Your task to perform on an android device: Add macbook to the cart on newegg, then select checkout. Image 0: 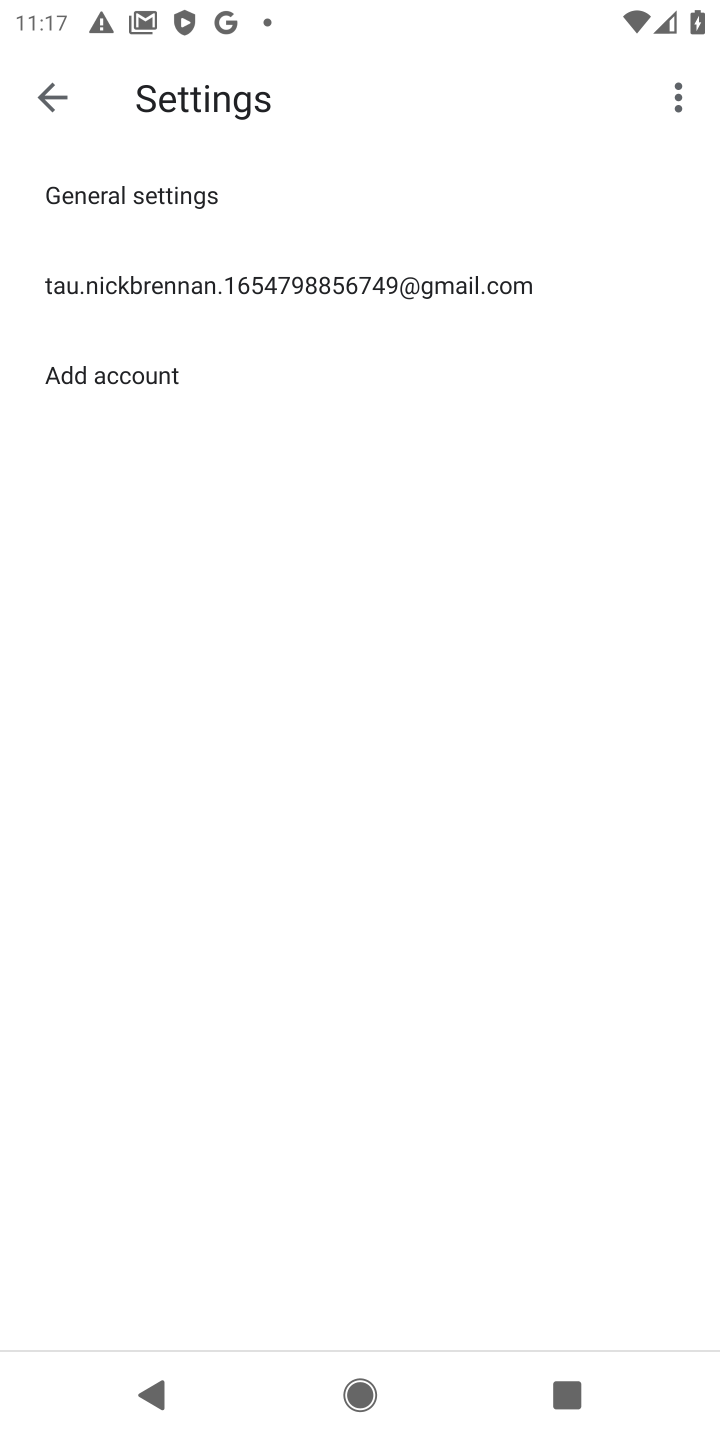
Step 0: press home button
Your task to perform on an android device: Add macbook to the cart on newegg, then select checkout. Image 1: 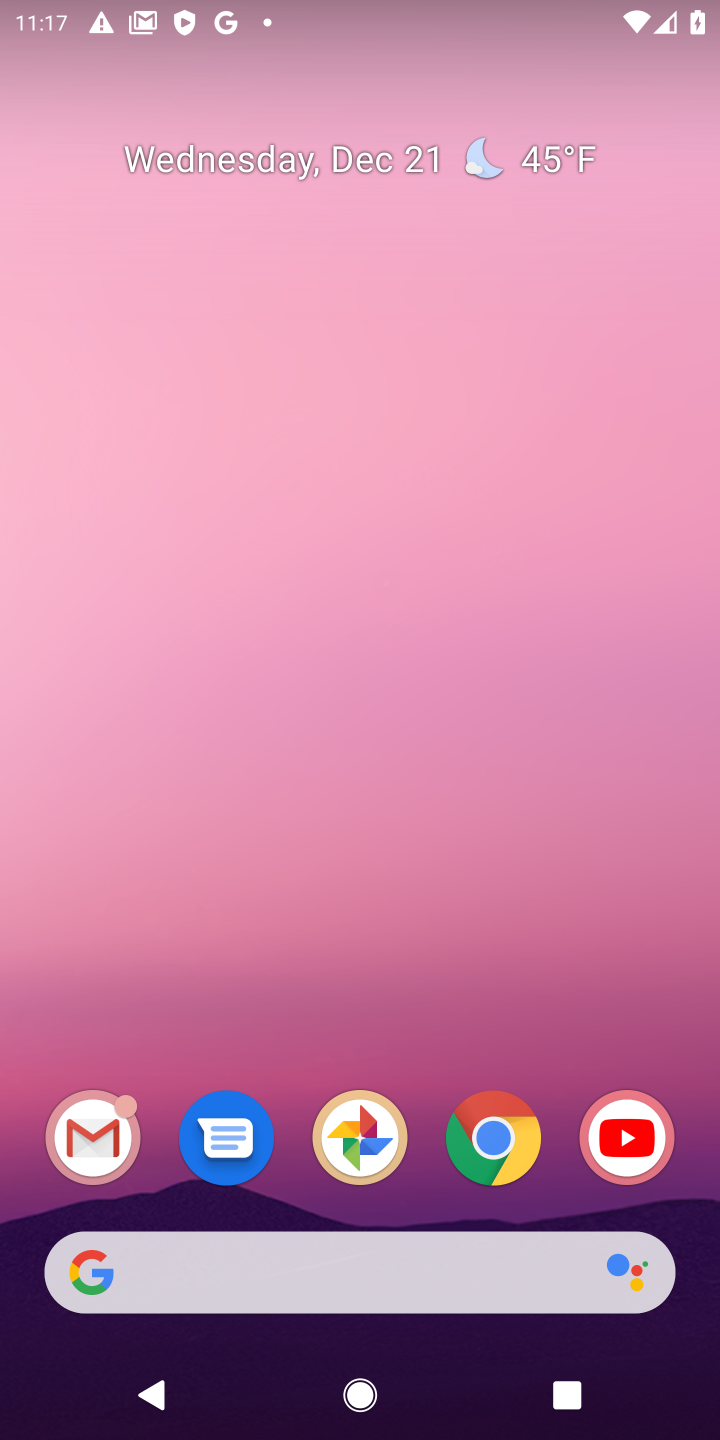
Step 1: click (497, 1147)
Your task to perform on an android device: Add macbook to the cart on newegg, then select checkout. Image 2: 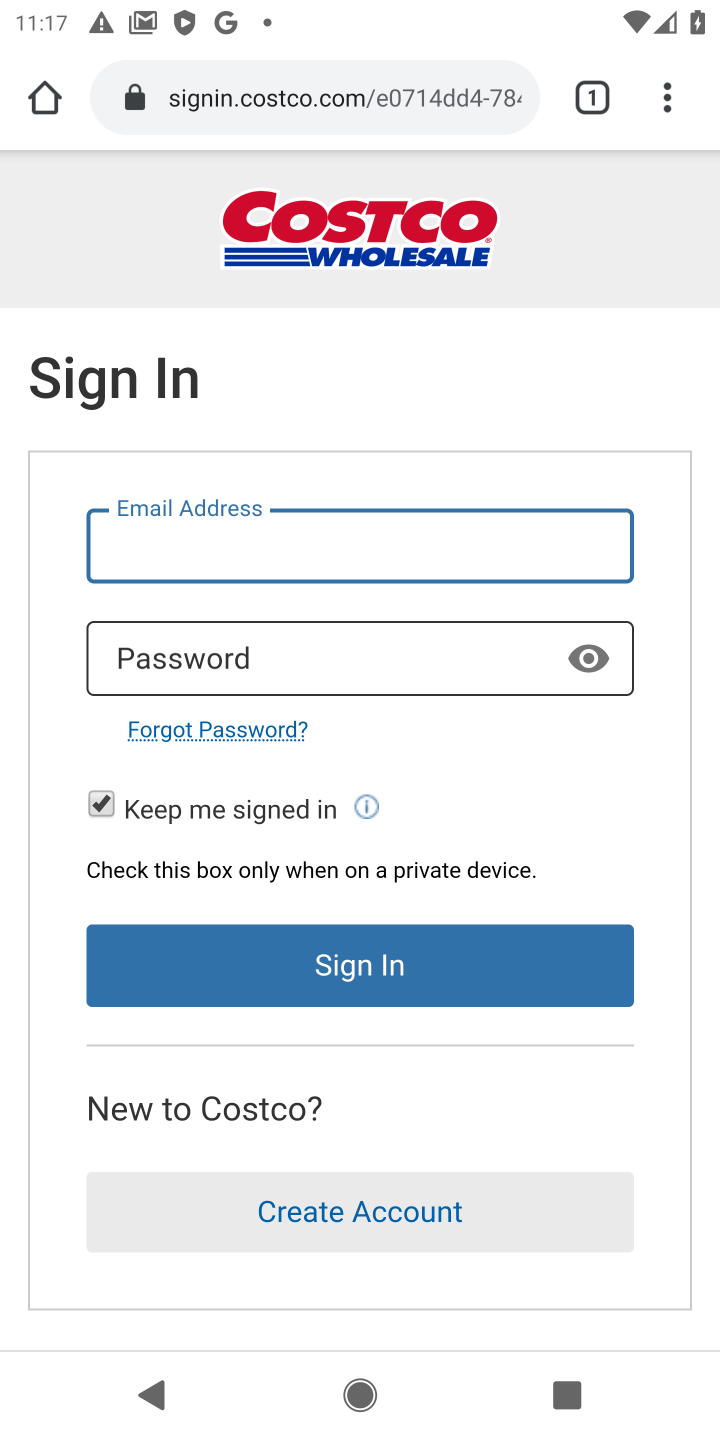
Step 2: click (208, 98)
Your task to perform on an android device: Add macbook to the cart on newegg, then select checkout. Image 3: 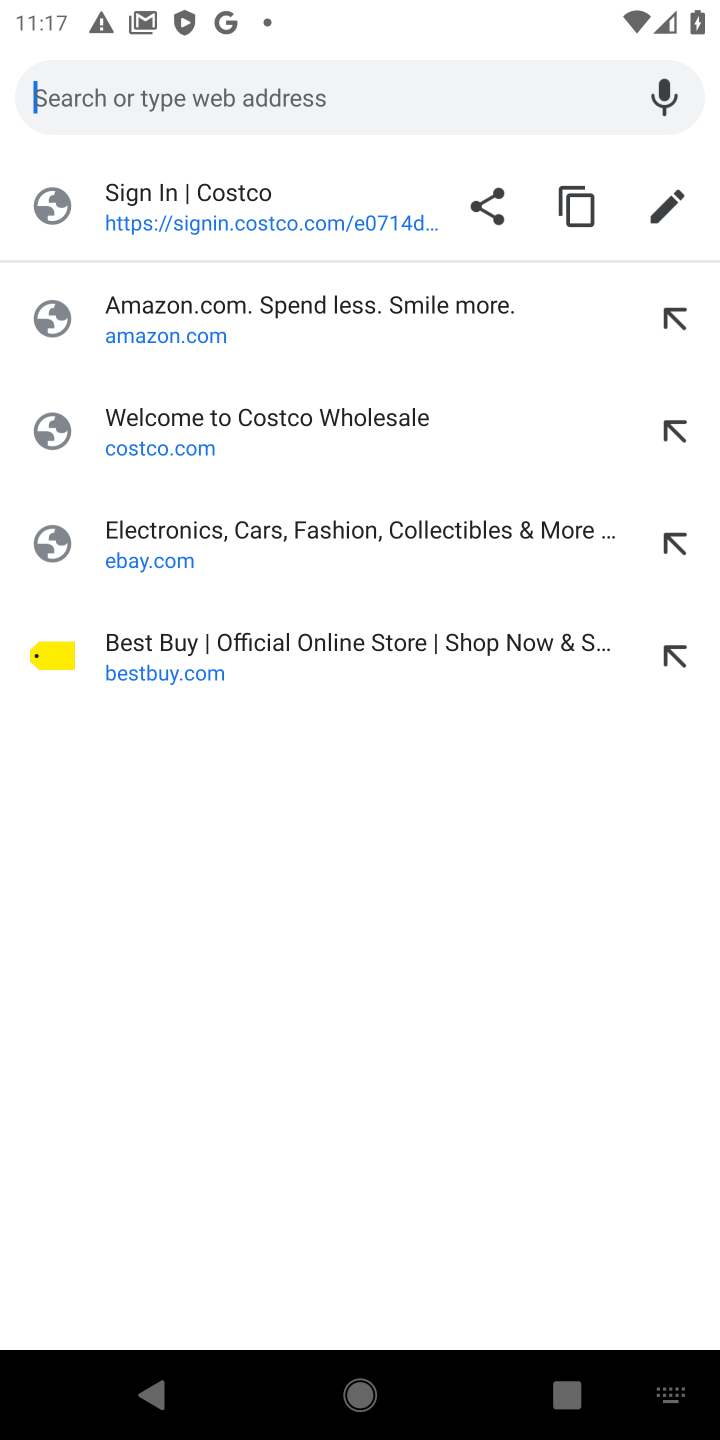
Step 3: type "newegg.com"
Your task to perform on an android device: Add macbook to the cart on newegg, then select checkout. Image 4: 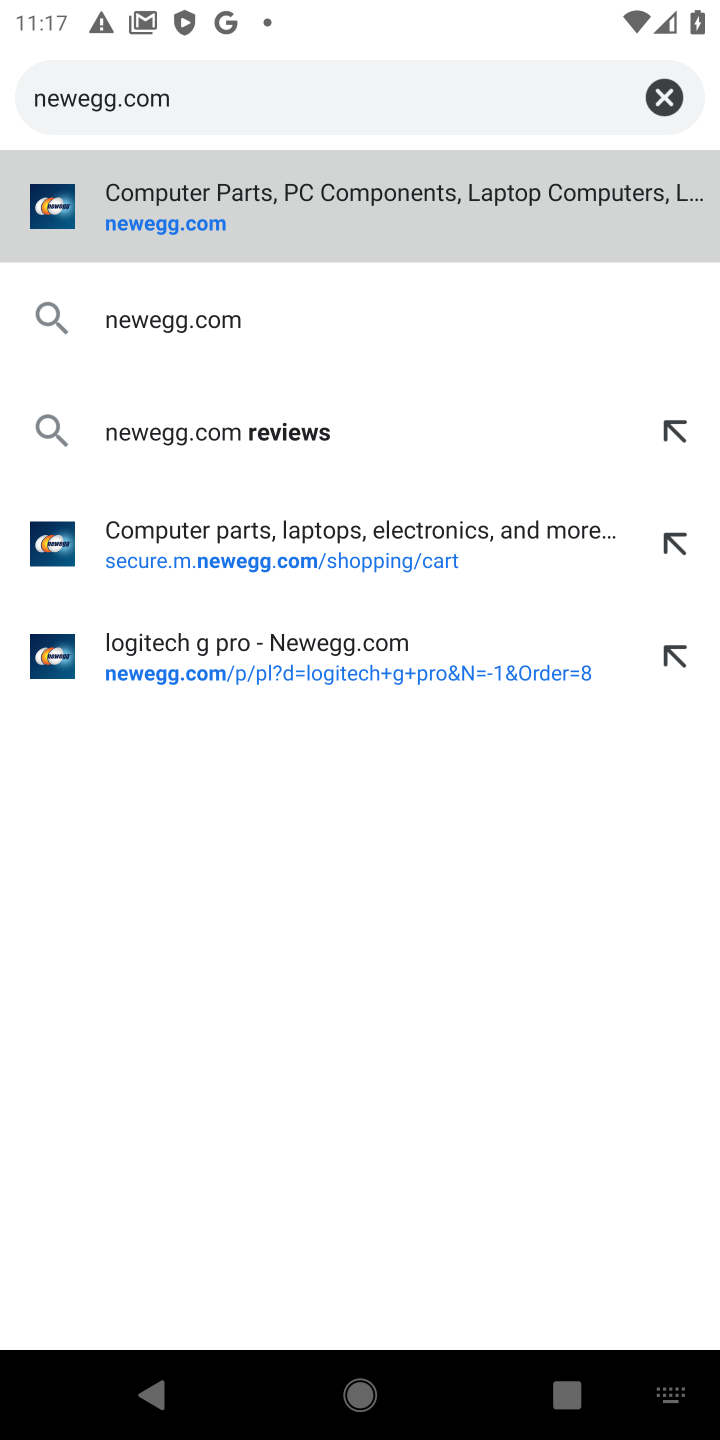
Step 4: click (139, 219)
Your task to perform on an android device: Add macbook to the cart on newegg, then select checkout. Image 5: 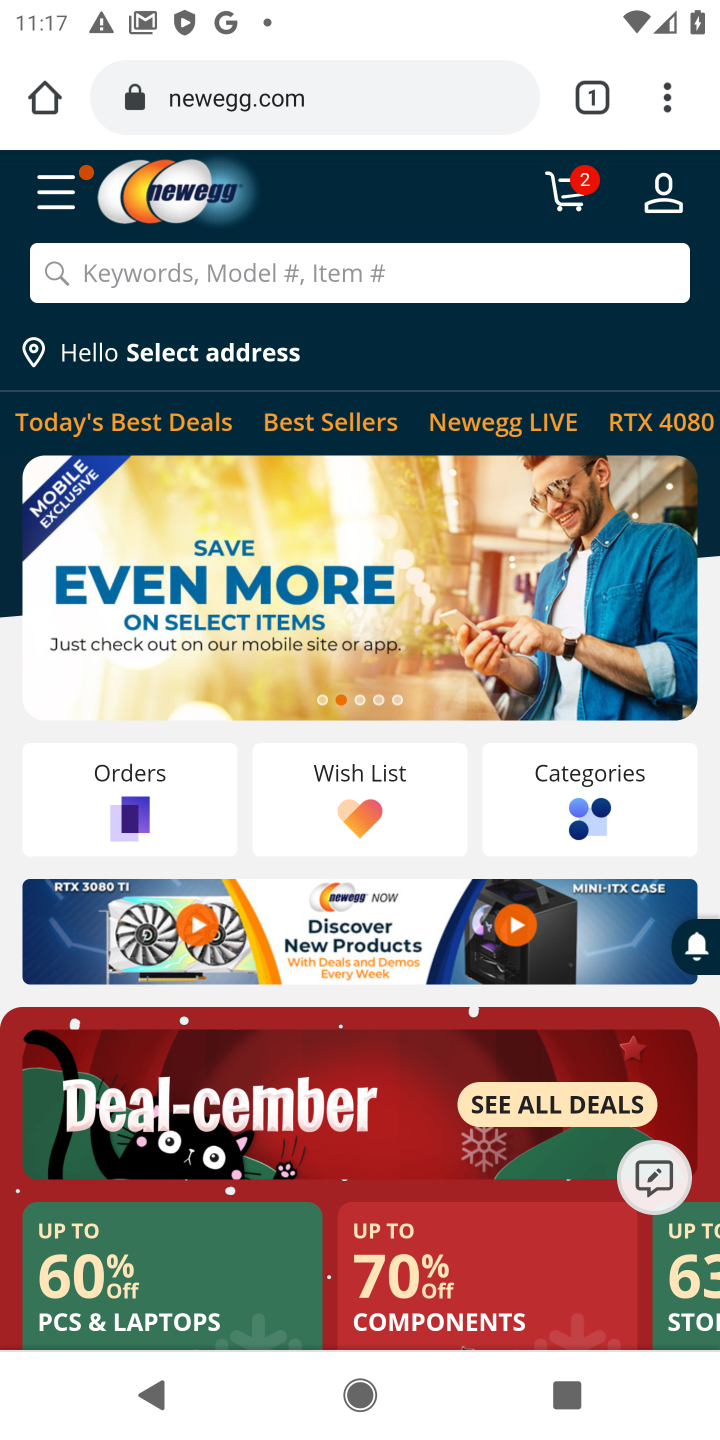
Step 5: click (178, 289)
Your task to perform on an android device: Add macbook to the cart on newegg, then select checkout. Image 6: 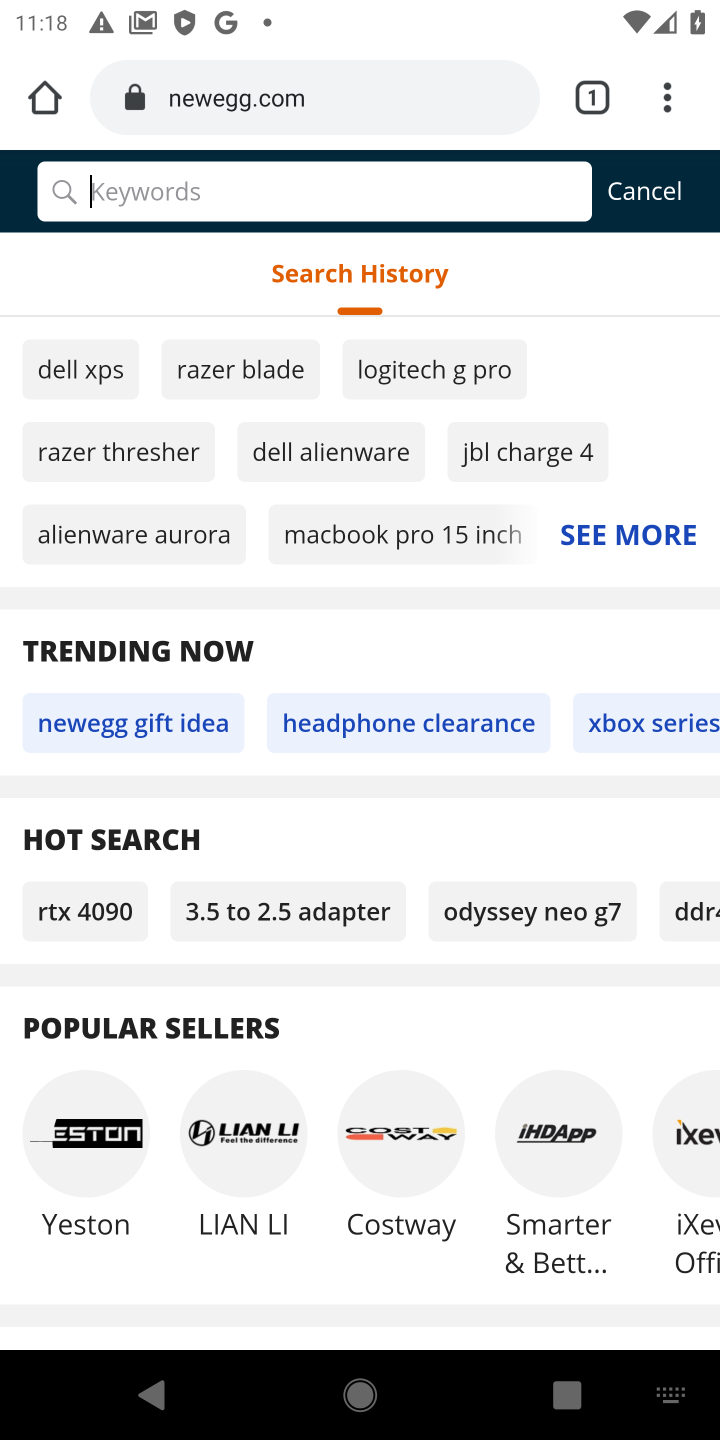
Step 6: type "macbook"
Your task to perform on an android device: Add macbook to the cart on newegg, then select checkout. Image 7: 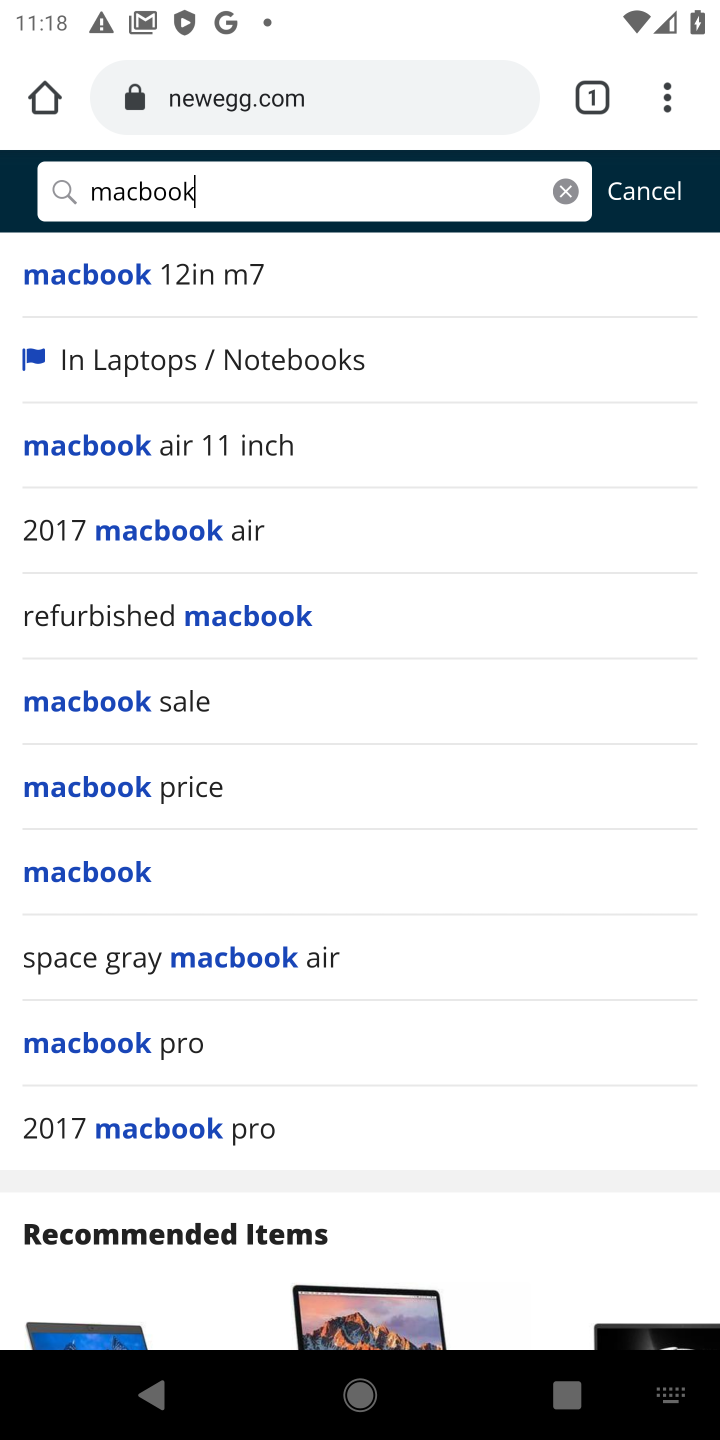
Step 7: click (74, 865)
Your task to perform on an android device: Add macbook to the cart on newegg, then select checkout. Image 8: 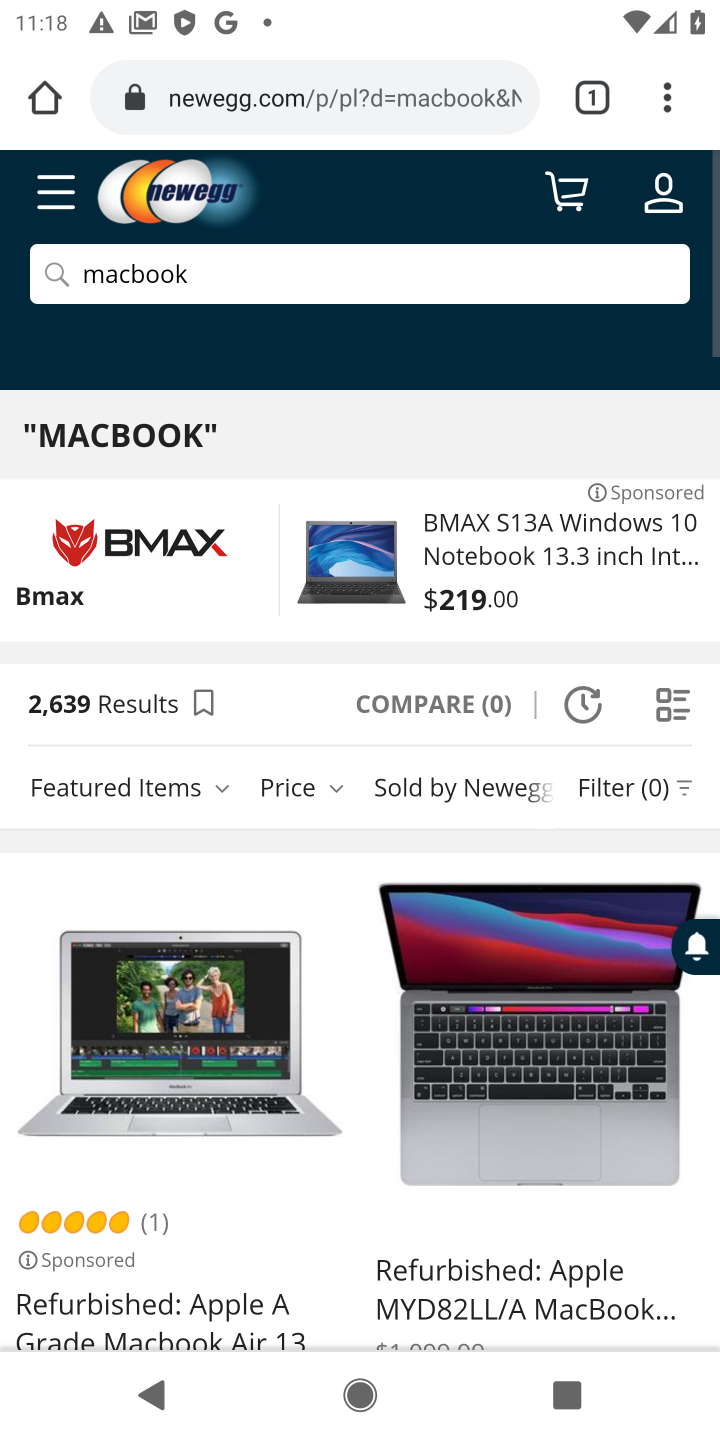
Step 8: click (84, 875)
Your task to perform on an android device: Add macbook to the cart on newegg, then select checkout. Image 9: 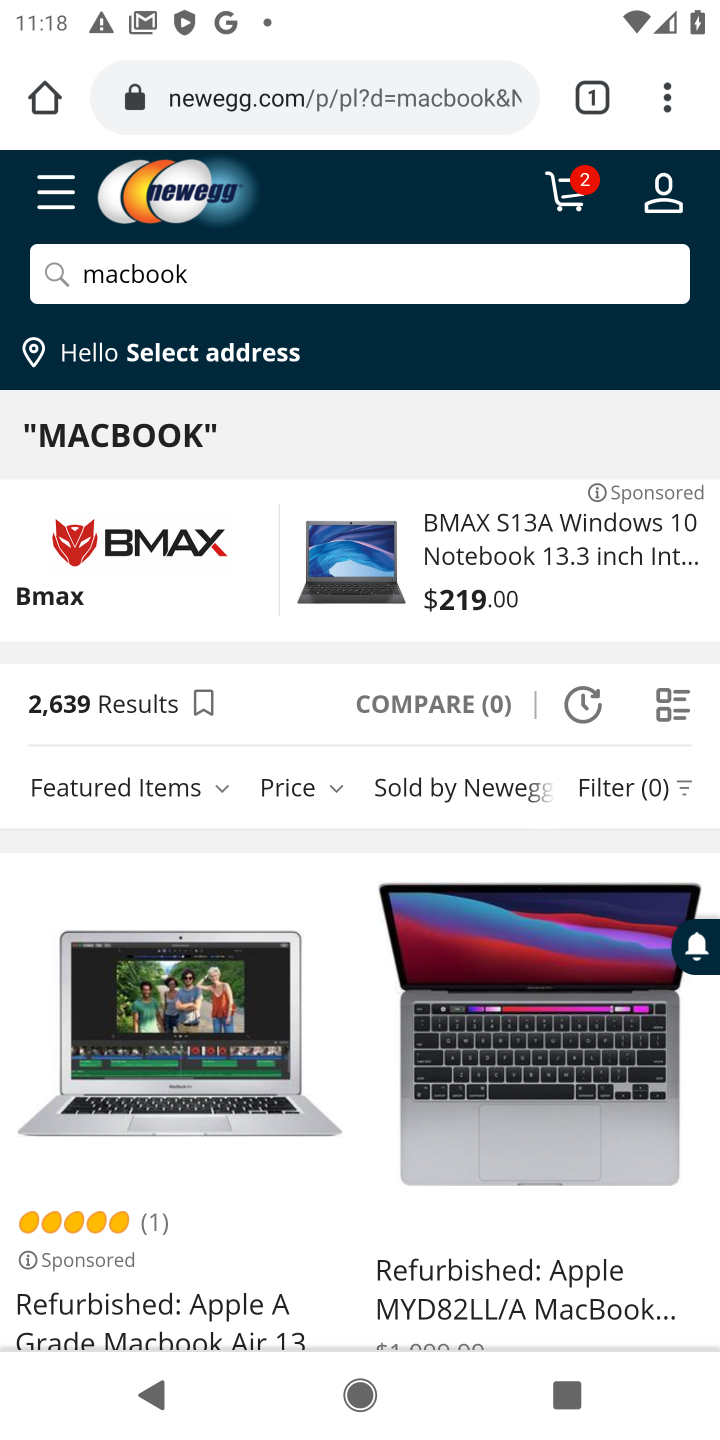
Step 9: drag from (84, 875) to (136, 578)
Your task to perform on an android device: Add macbook to the cart on newegg, then select checkout. Image 10: 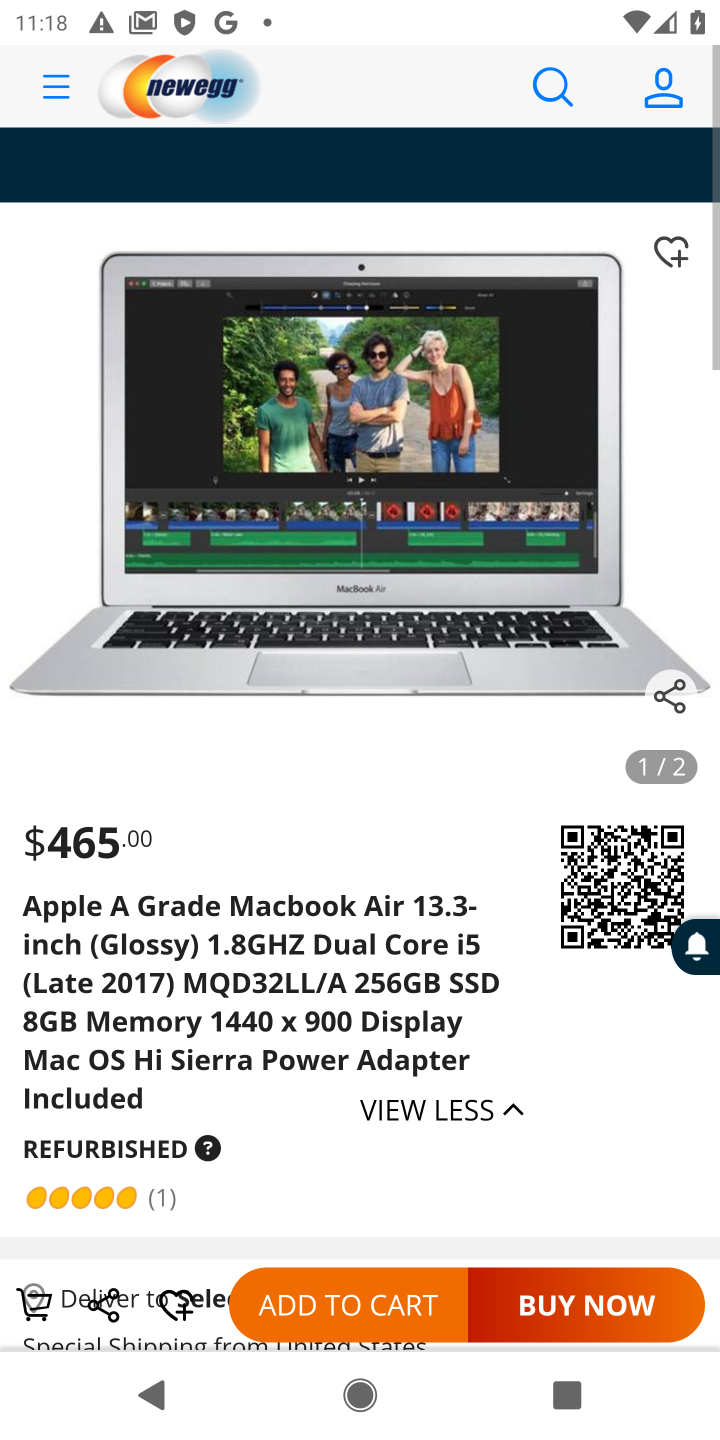
Step 10: click (152, 1092)
Your task to perform on an android device: Add macbook to the cart on newegg, then select checkout. Image 11: 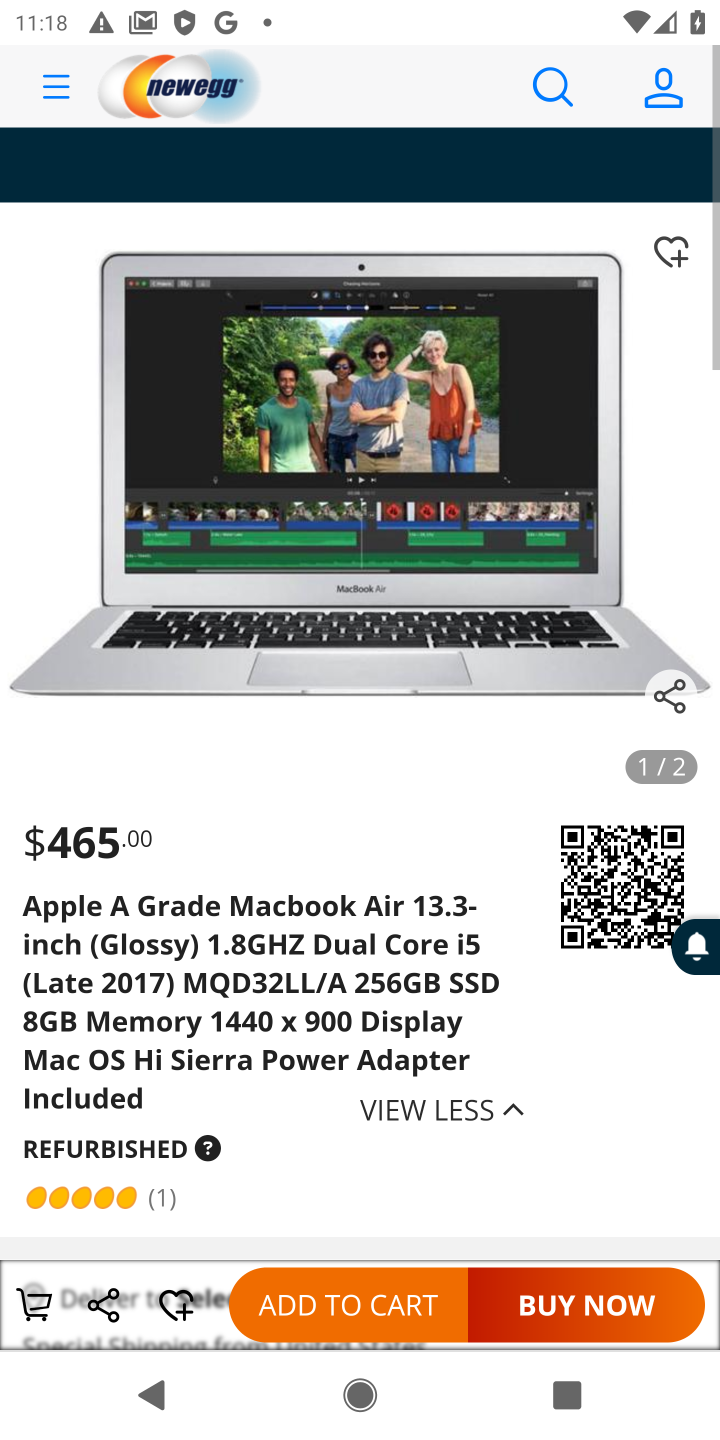
Step 11: drag from (155, 1086) to (189, 835)
Your task to perform on an android device: Add macbook to the cart on newegg, then select checkout. Image 12: 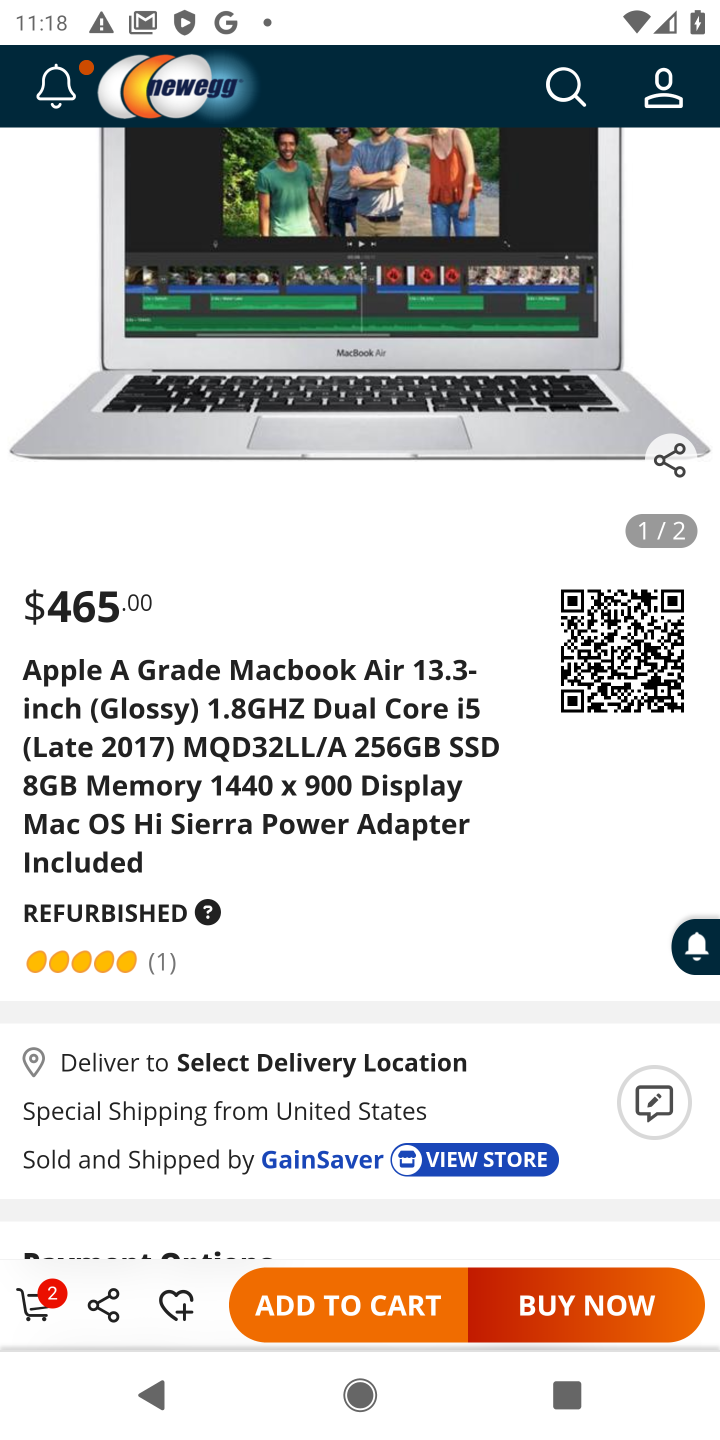
Step 12: click (318, 1305)
Your task to perform on an android device: Add macbook to the cart on newegg, then select checkout. Image 13: 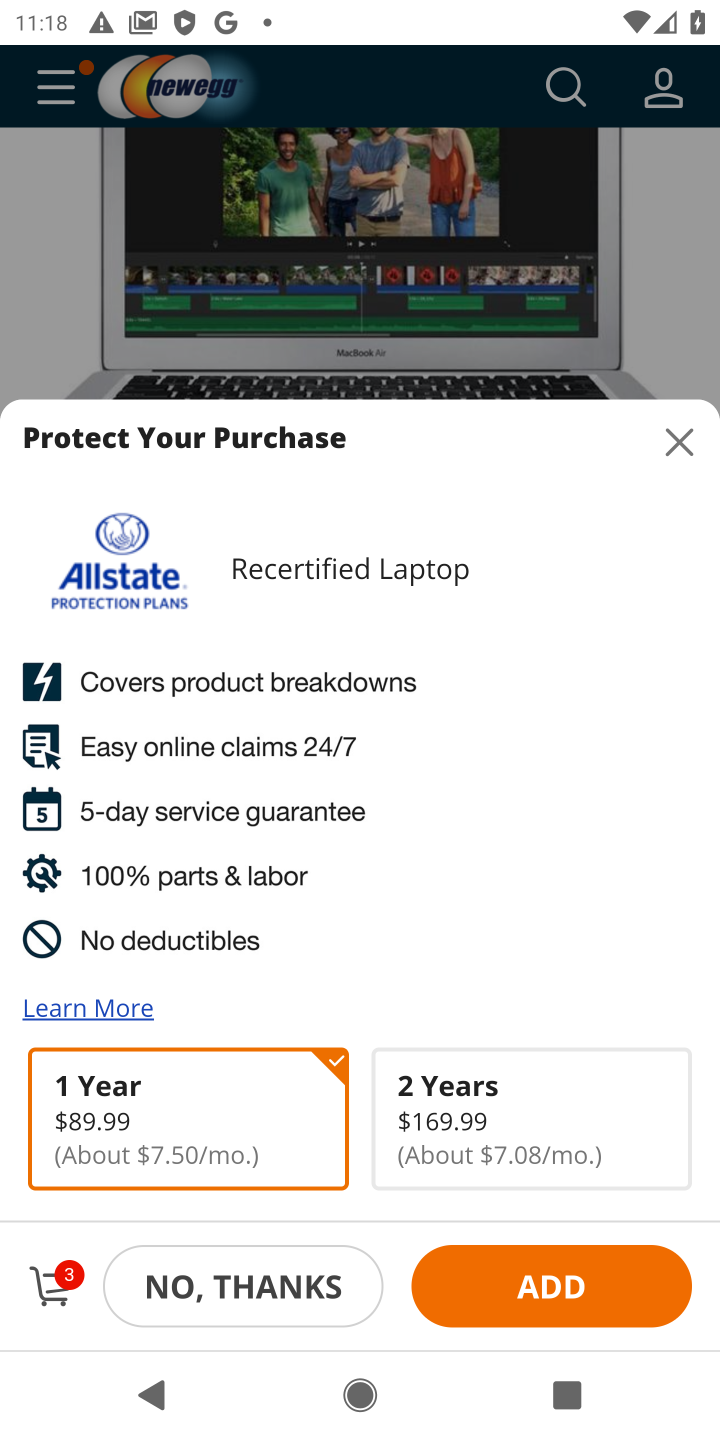
Step 13: click (64, 1288)
Your task to perform on an android device: Add macbook to the cart on newegg, then select checkout. Image 14: 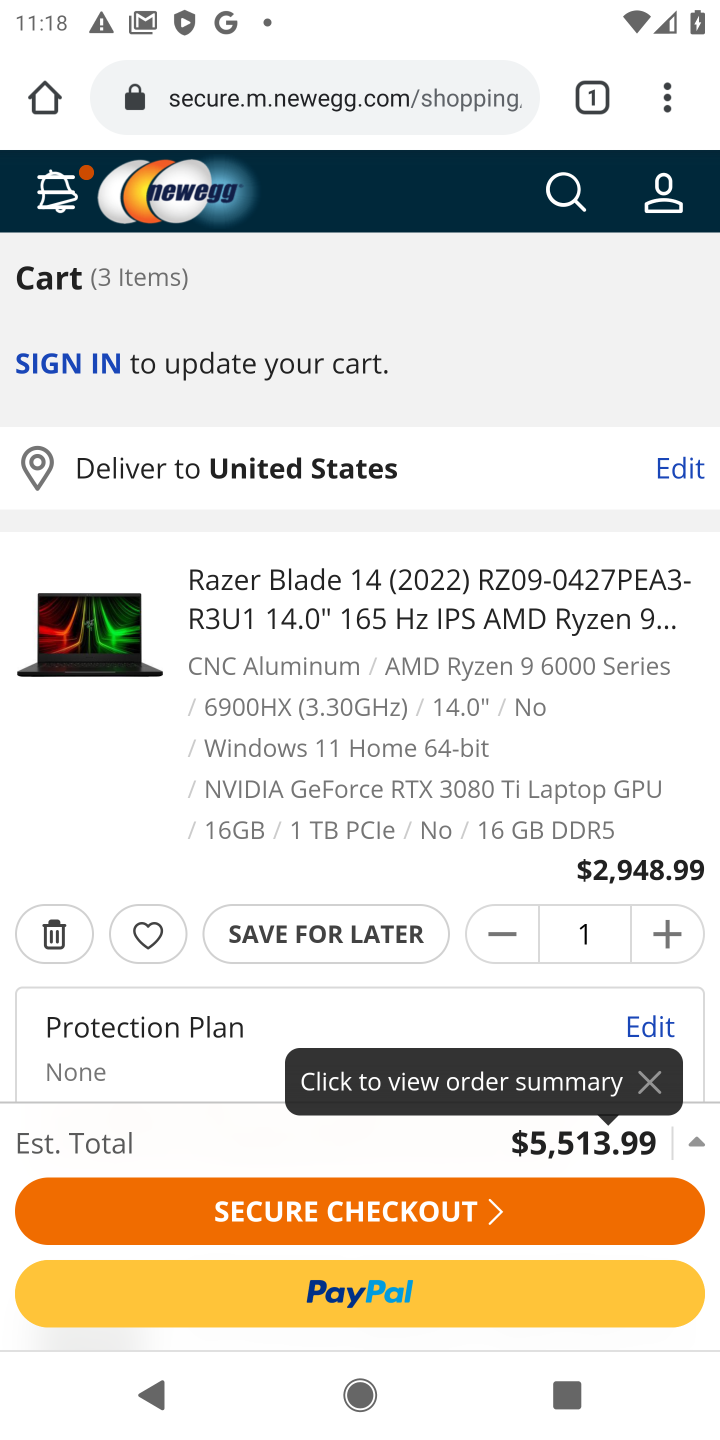
Step 14: click (266, 1271)
Your task to perform on an android device: Add macbook to the cart on newegg, then select checkout. Image 15: 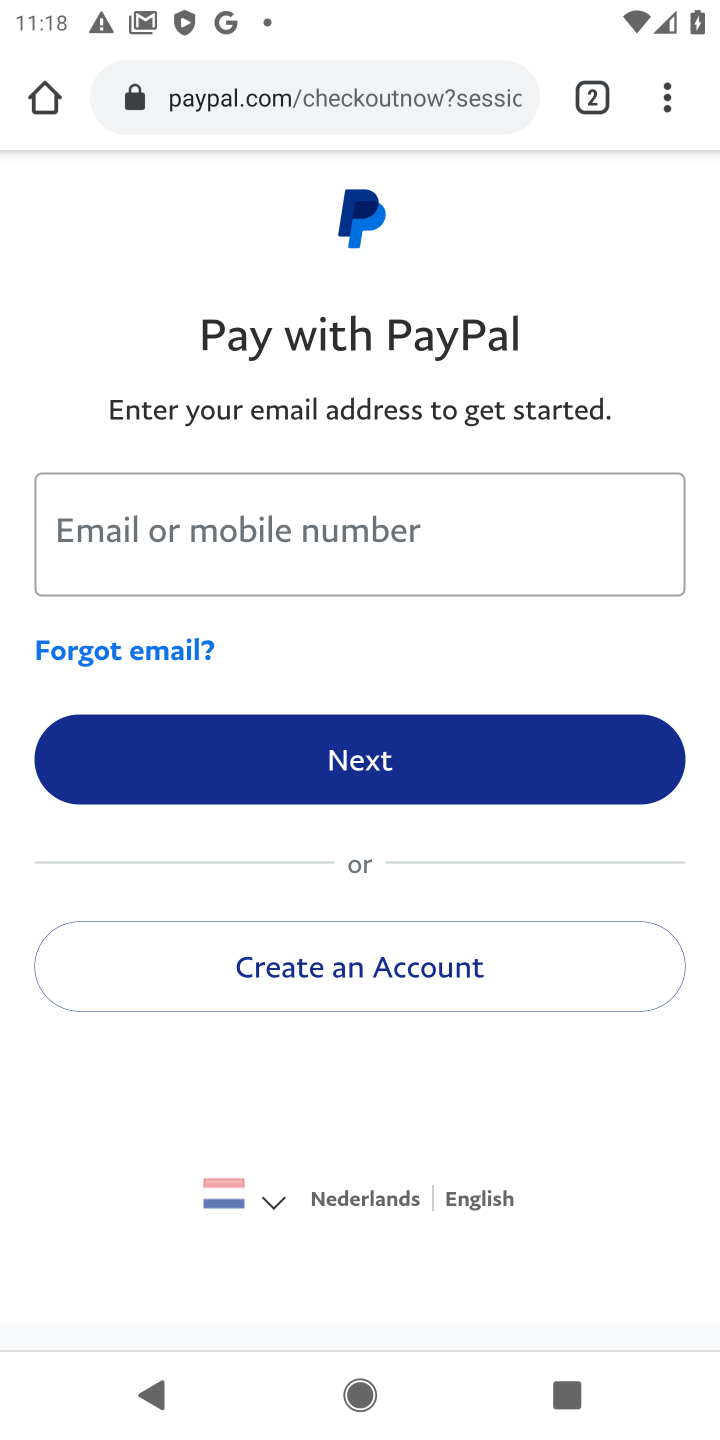
Step 15: task complete